Your task to perform on an android device: Go to privacy settings Image 0: 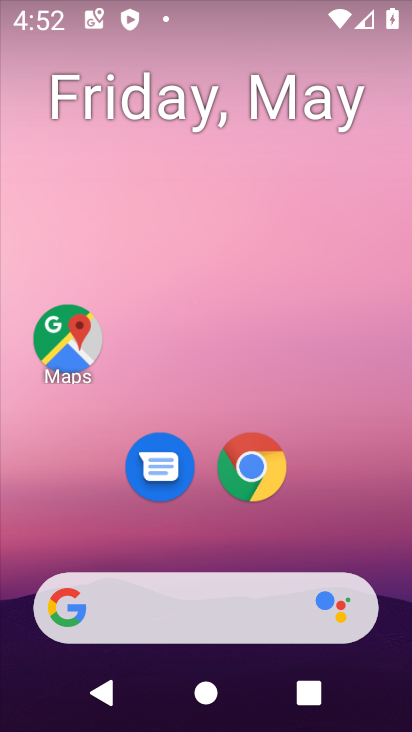
Step 0: drag from (301, 526) to (313, 89)
Your task to perform on an android device: Go to privacy settings Image 1: 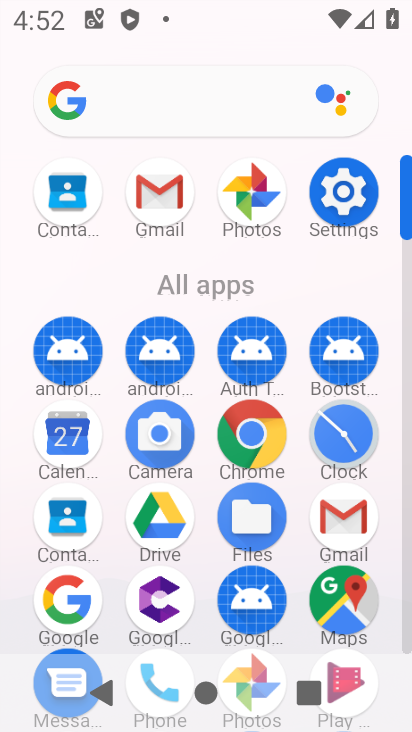
Step 1: click (341, 206)
Your task to perform on an android device: Go to privacy settings Image 2: 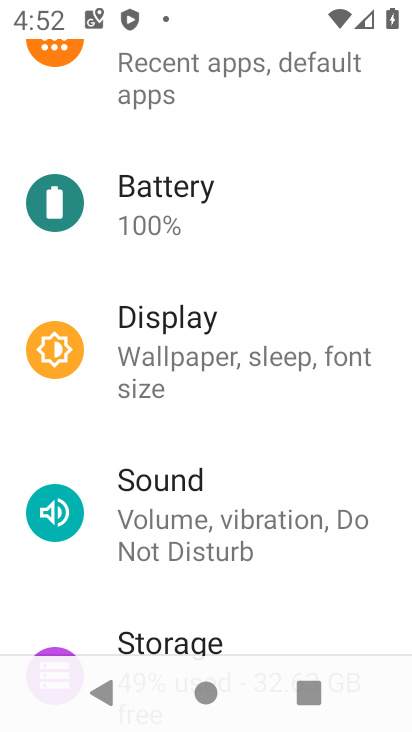
Step 2: drag from (263, 548) to (289, 147)
Your task to perform on an android device: Go to privacy settings Image 3: 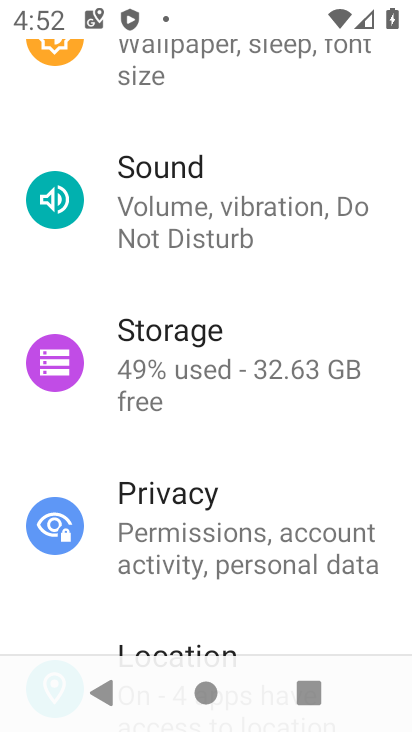
Step 3: click (183, 506)
Your task to perform on an android device: Go to privacy settings Image 4: 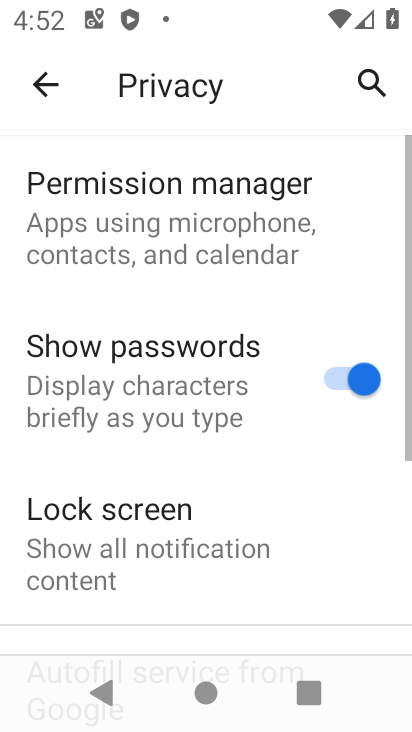
Step 4: task complete